Your task to perform on an android device: Is it going to rain tomorrow? Image 0: 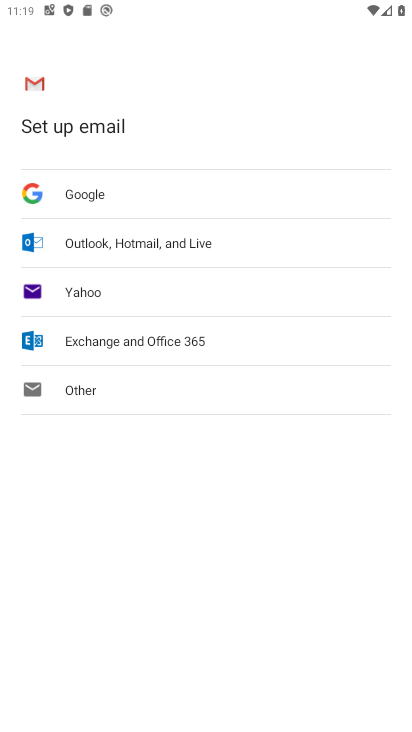
Step 0: press home button
Your task to perform on an android device: Is it going to rain tomorrow? Image 1: 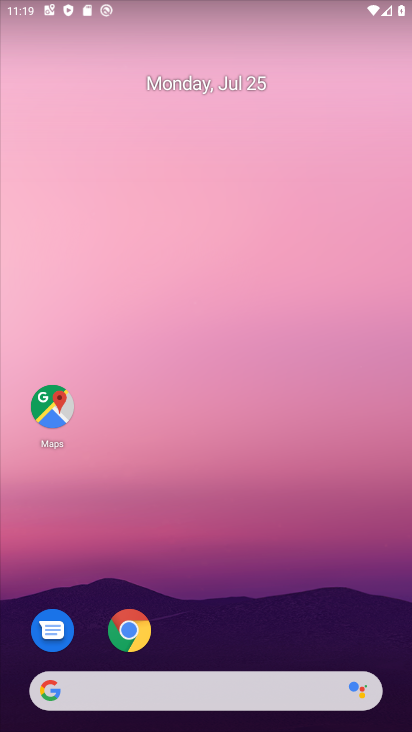
Step 1: click (235, 691)
Your task to perform on an android device: Is it going to rain tomorrow? Image 2: 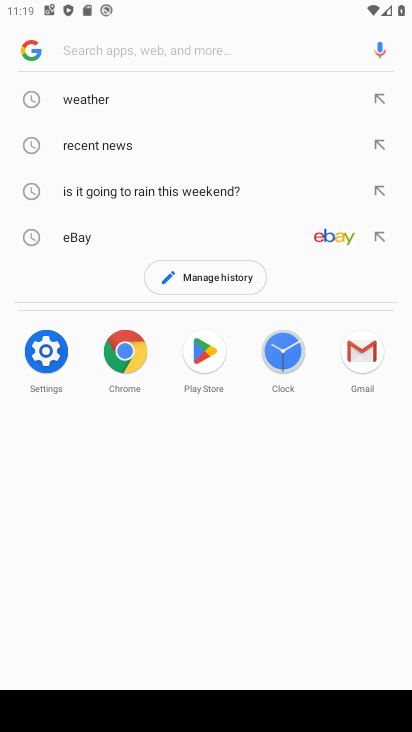
Step 2: click (132, 100)
Your task to perform on an android device: Is it going to rain tomorrow? Image 3: 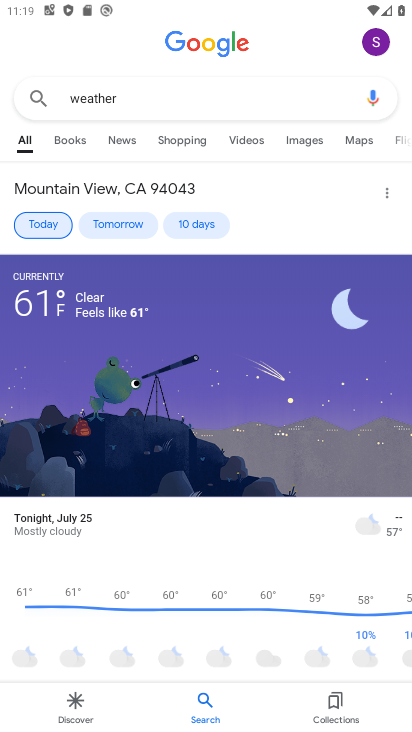
Step 3: click (123, 226)
Your task to perform on an android device: Is it going to rain tomorrow? Image 4: 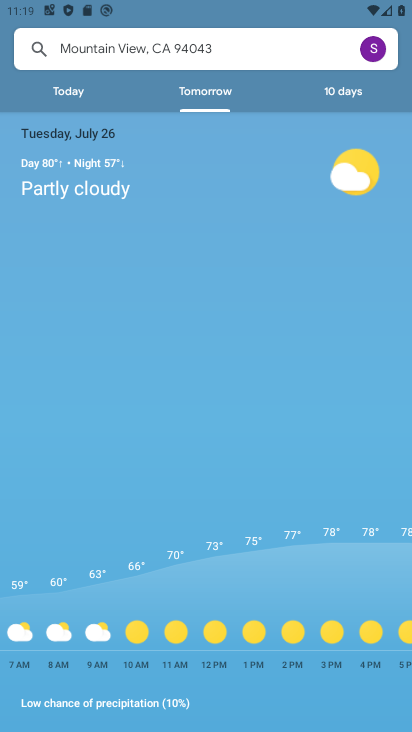
Step 4: task complete